Your task to perform on an android device: change text size in settings app Image 0: 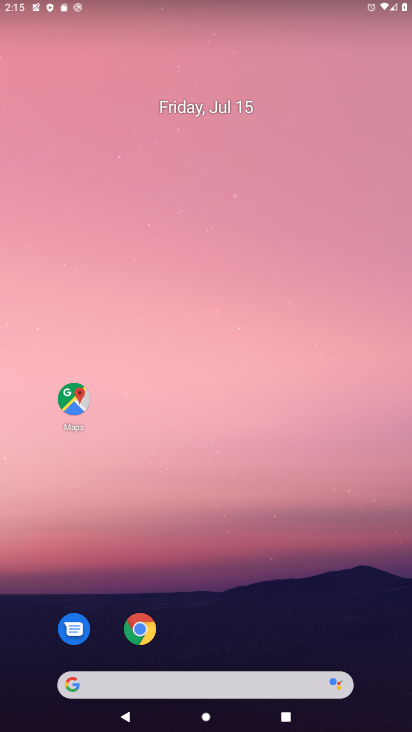
Step 0: drag from (272, 561) to (282, 32)
Your task to perform on an android device: change text size in settings app Image 1: 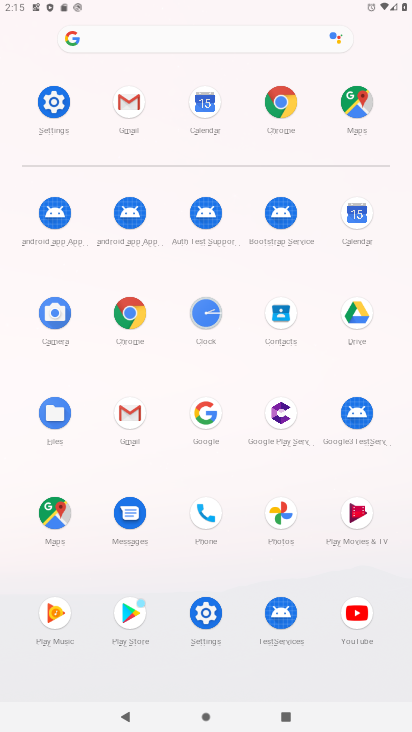
Step 1: click (56, 95)
Your task to perform on an android device: change text size in settings app Image 2: 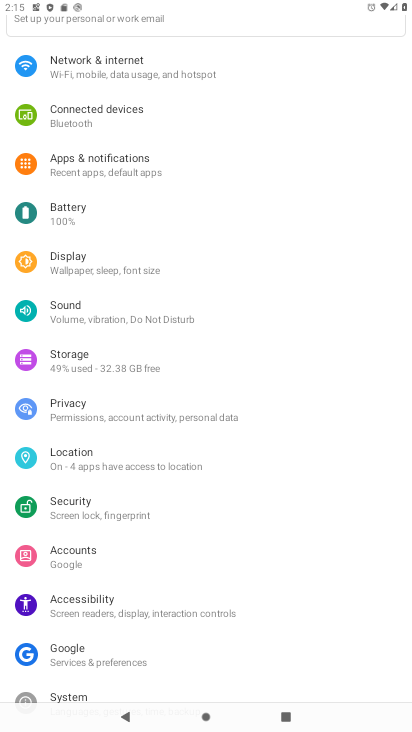
Step 2: drag from (204, 680) to (268, 232)
Your task to perform on an android device: change text size in settings app Image 3: 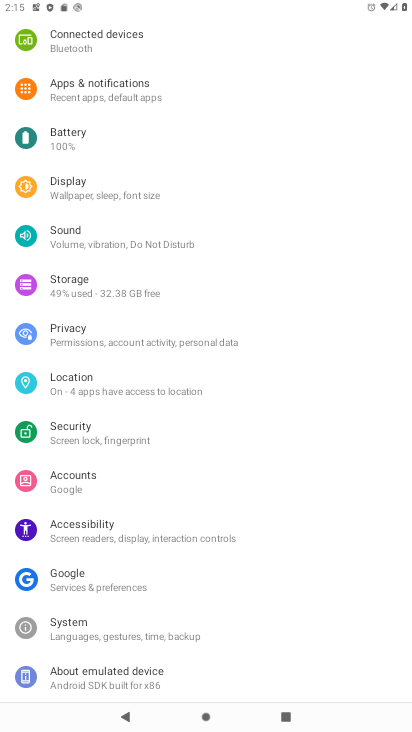
Step 3: click (81, 205)
Your task to perform on an android device: change text size in settings app Image 4: 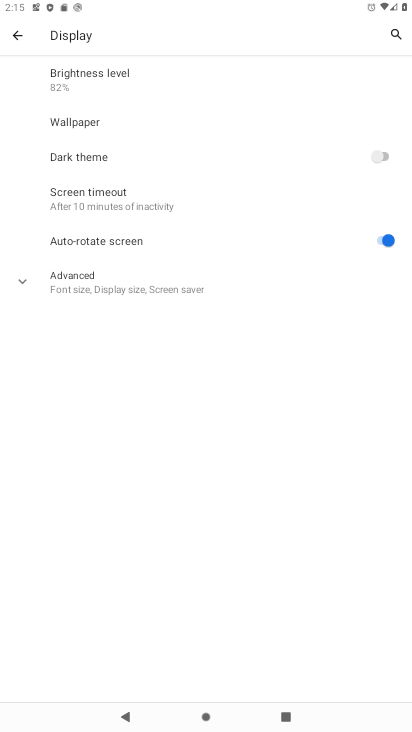
Step 4: click (78, 289)
Your task to perform on an android device: change text size in settings app Image 5: 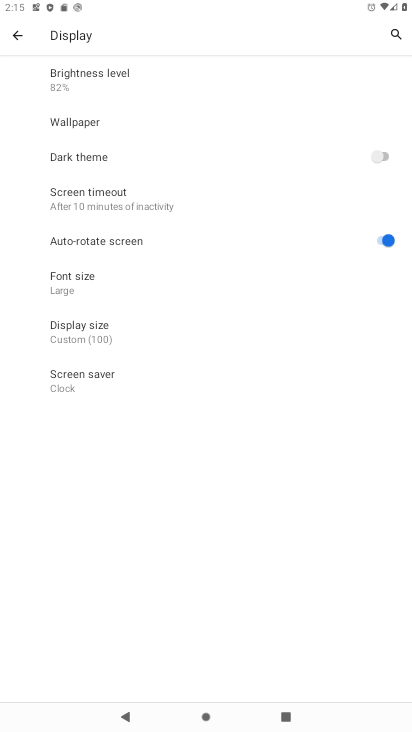
Step 5: click (90, 284)
Your task to perform on an android device: change text size in settings app Image 6: 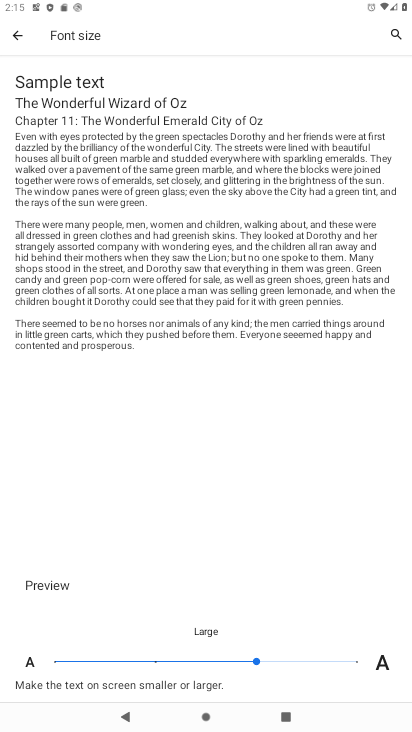
Step 6: click (123, 661)
Your task to perform on an android device: change text size in settings app Image 7: 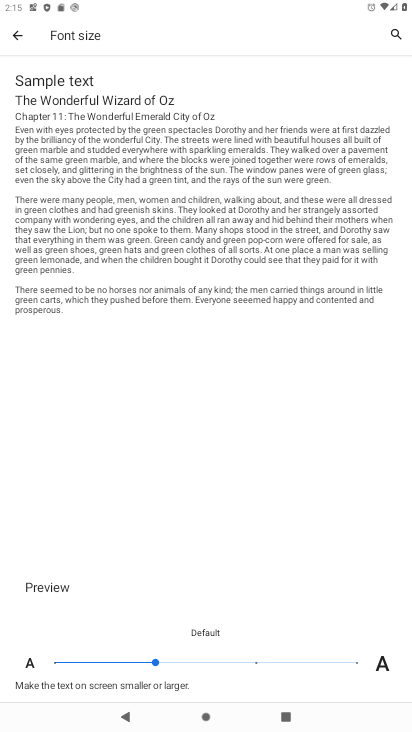
Step 7: task complete